Your task to perform on an android device: What's the weather? Image 0: 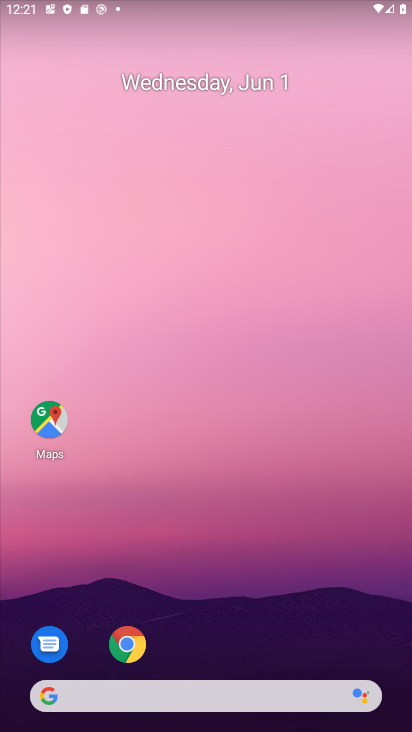
Step 0: click (197, 90)
Your task to perform on an android device: What's the weather? Image 1: 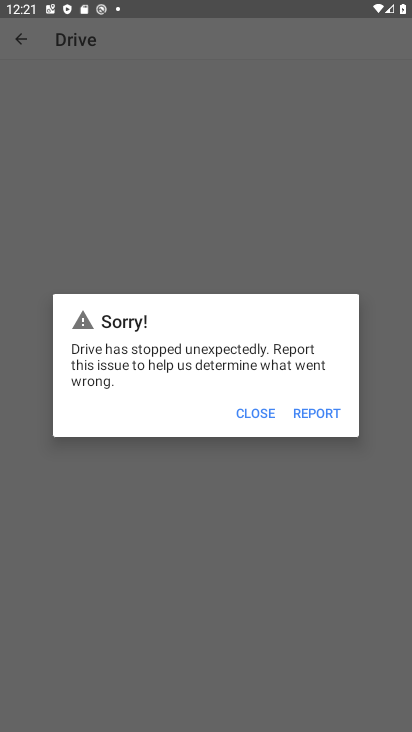
Step 1: press home button
Your task to perform on an android device: What's the weather? Image 2: 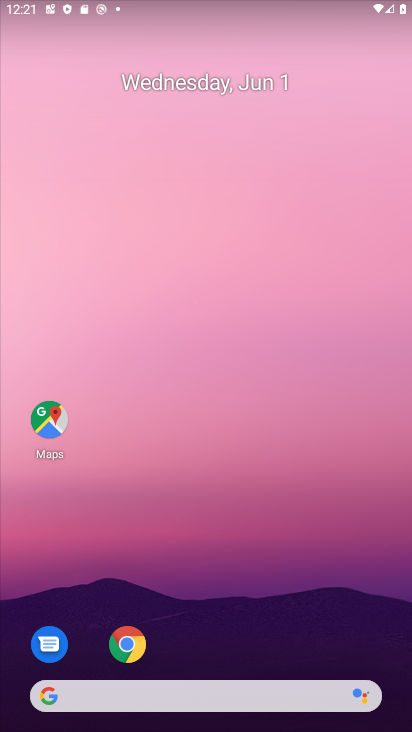
Step 2: drag from (377, 577) to (317, 140)
Your task to perform on an android device: What's the weather? Image 3: 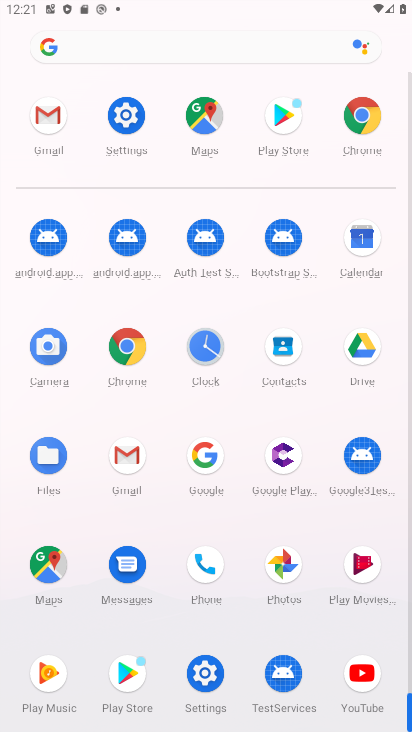
Step 3: click (116, 358)
Your task to perform on an android device: What's the weather? Image 4: 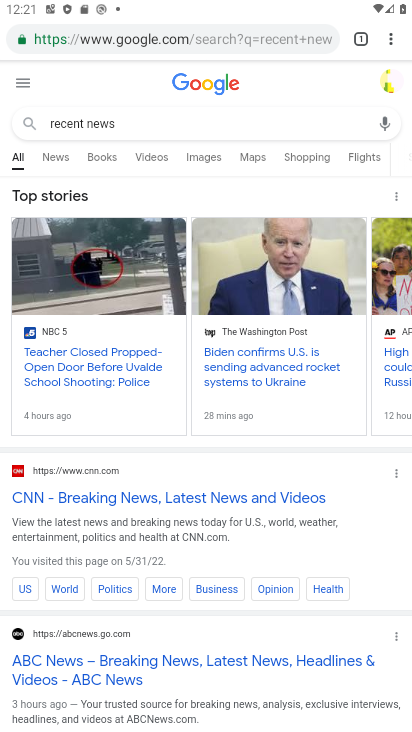
Step 4: click (199, 44)
Your task to perform on an android device: What's the weather? Image 5: 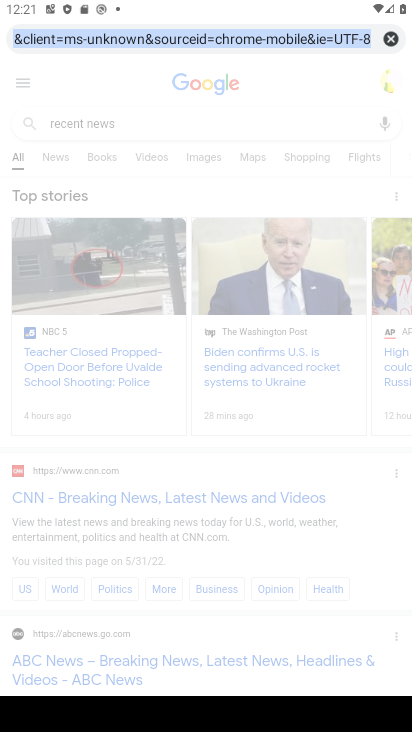
Step 5: click (394, 40)
Your task to perform on an android device: What's the weather? Image 6: 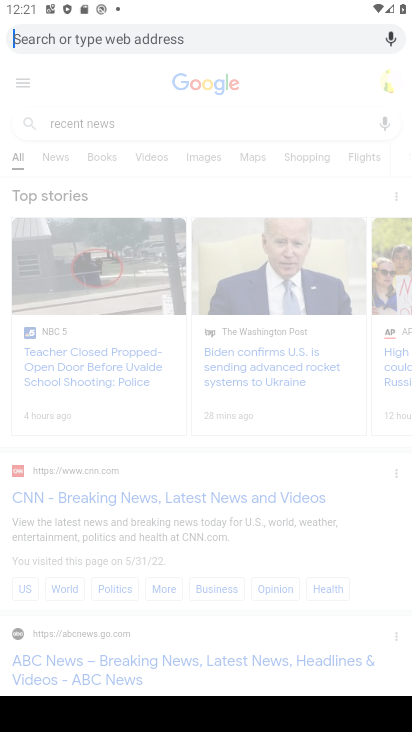
Step 6: type "what's the weather"
Your task to perform on an android device: What's the weather? Image 7: 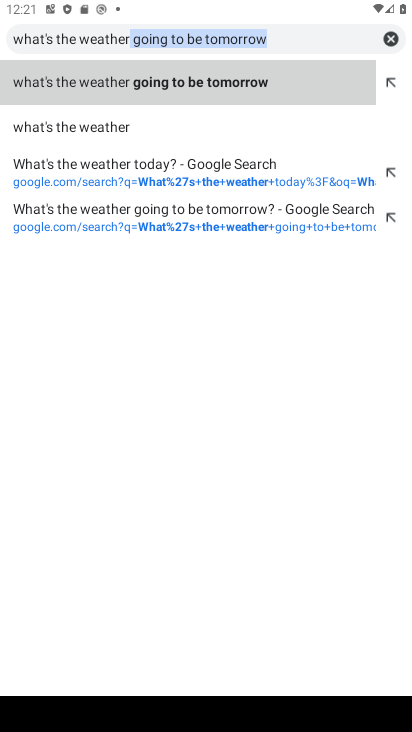
Step 7: click (71, 133)
Your task to perform on an android device: What's the weather? Image 8: 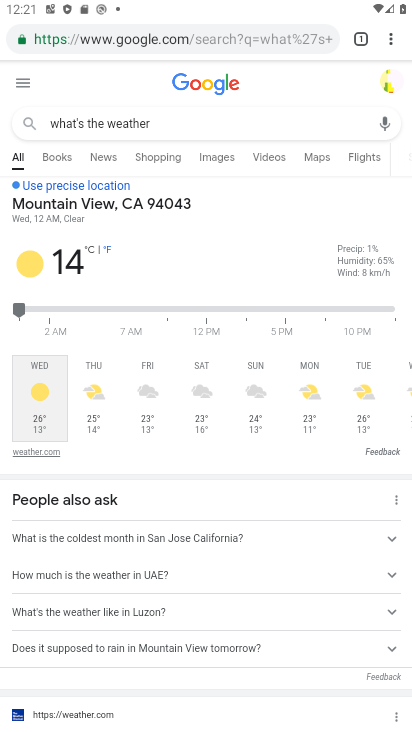
Step 8: task complete